Your task to perform on an android device: toggle show notifications on the lock screen Image 0: 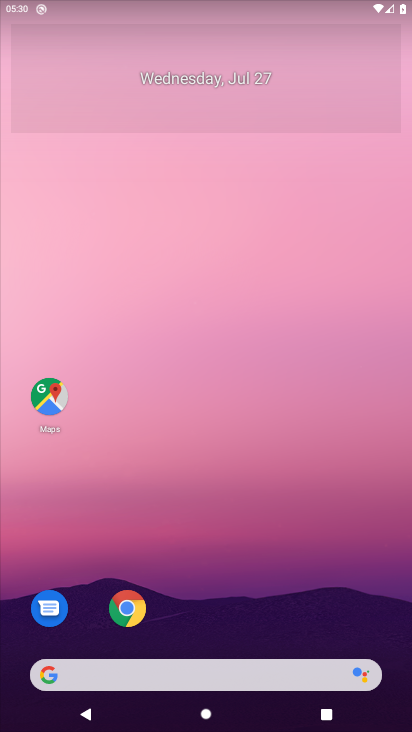
Step 0: press home button
Your task to perform on an android device: toggle show notifications on the lock screen Image 1: 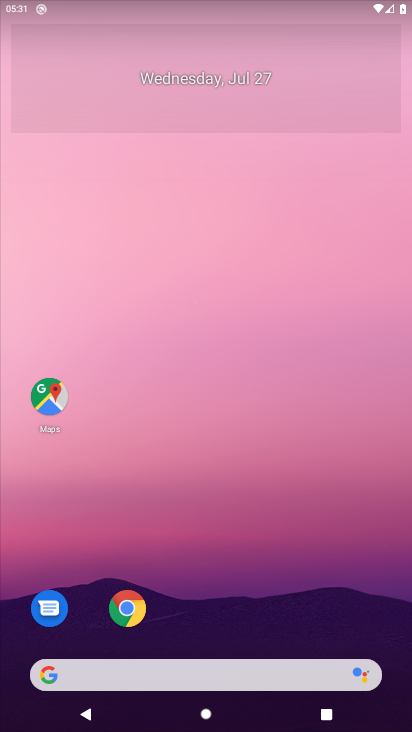
Step 1: drag from (220, 653) to (181, 66)
Your task to perform on an android device: toggle show notifications on the lock screen Image 2: 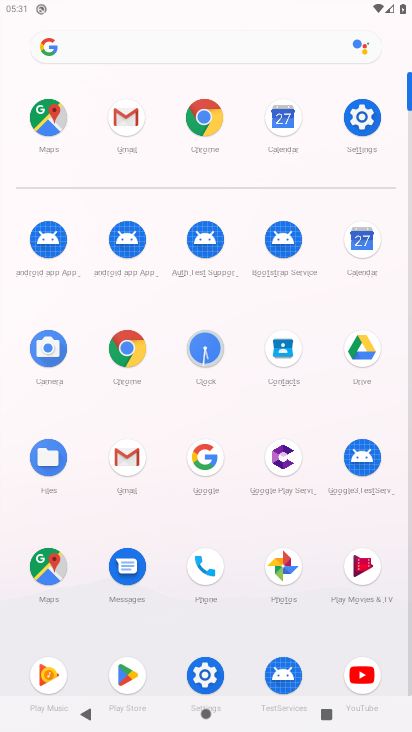
Step 2: click (355, 121)
Your task to perform on an android device: toggle show notifications on the lock screen Image 3: 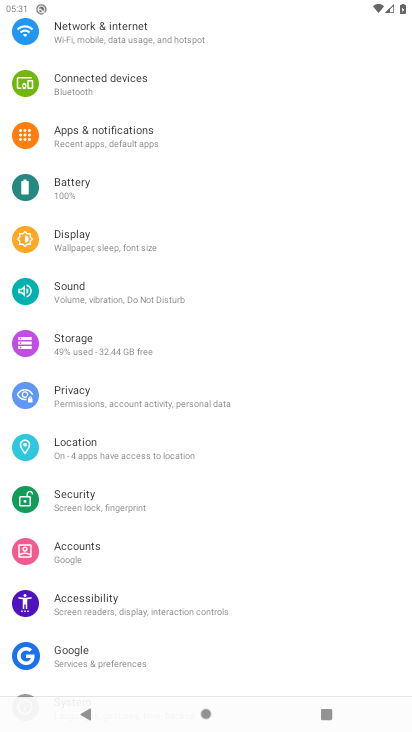
Step 3: click (106, 131)
Your task to perform on an android device: toggle show notifications on the lock screen Image 4: 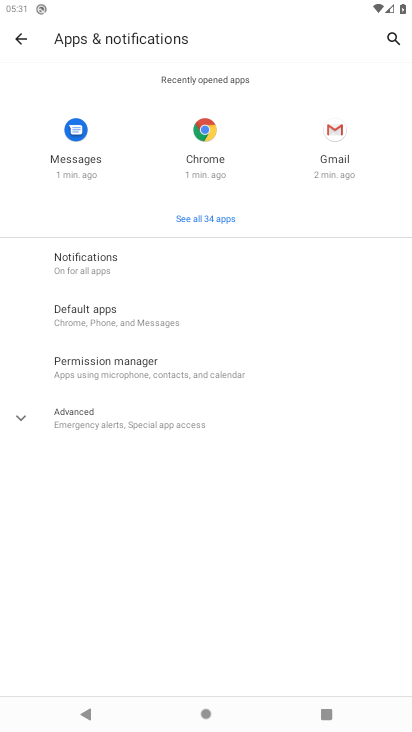
Step 4: click (90, 267)
Your task to perform on an android device: toggle show notifications on the lock screen Image 5: 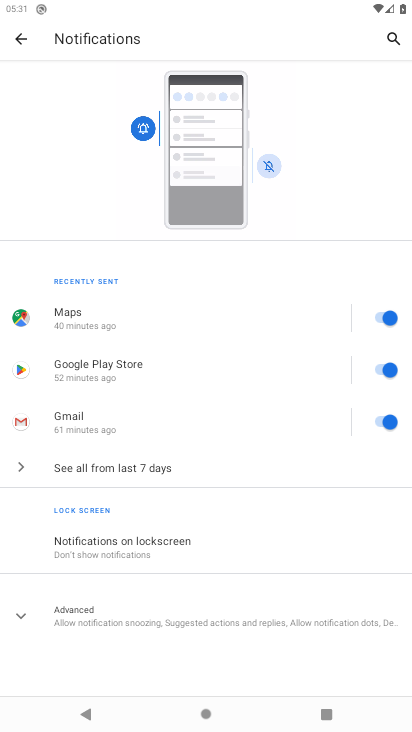
Step 5: click (74, 546)
Your task to perform on an android device: toggle show notifications on the lock screen Image 6: 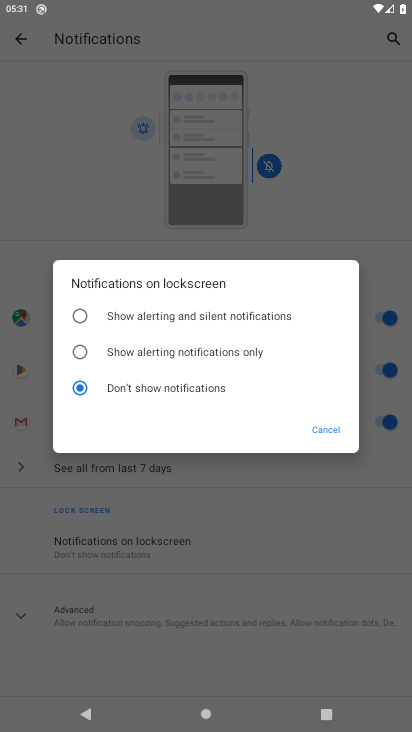
Step 6: click (81, 317)
Your task to perform on an android device: toggle show notifications on the lock screen Image 7: 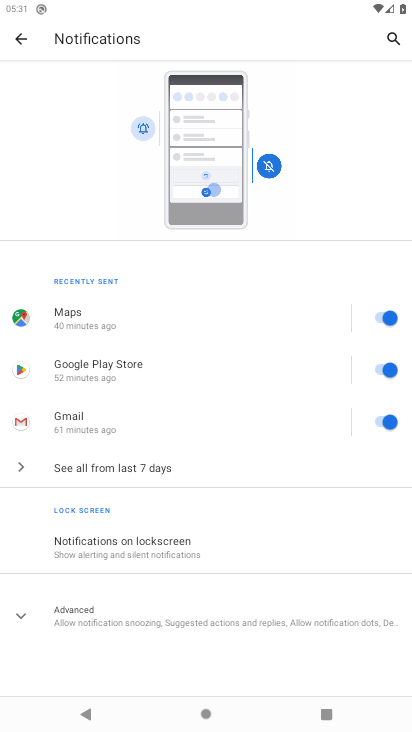
Step 7: task complete